Your task to perform on an android device: check battery use Image 0: 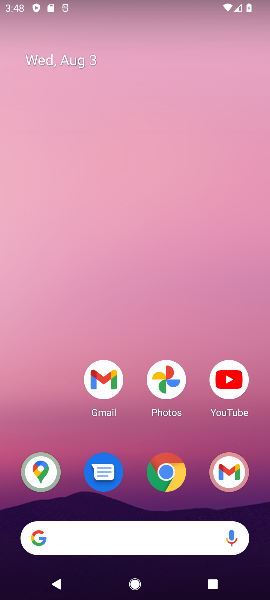
Step 0: drag from (44, 424) to (124, 4)
Your task to perform on an android device: check battery use Image 1: 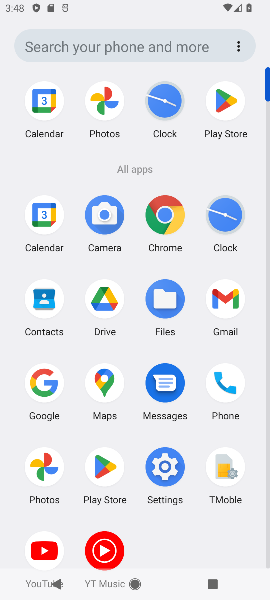
Step 1: click (160, 464)
Your task to perform on an android device: check battery use Image 2: 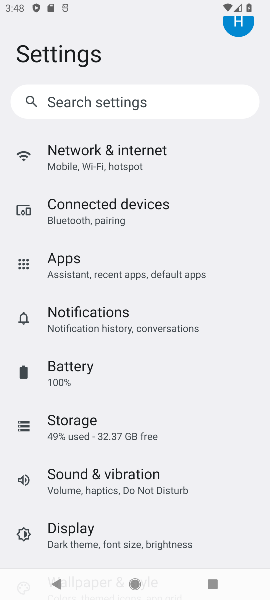
Step 2: click (90, 369)
Your task to perform on an android device: check battery use Image 3: 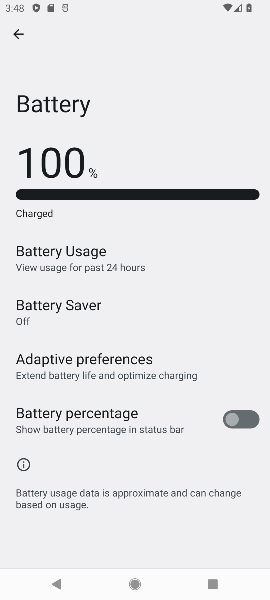
Step 3: click (85, 264)
Your task to perform on an android device: check battery use Image 4: 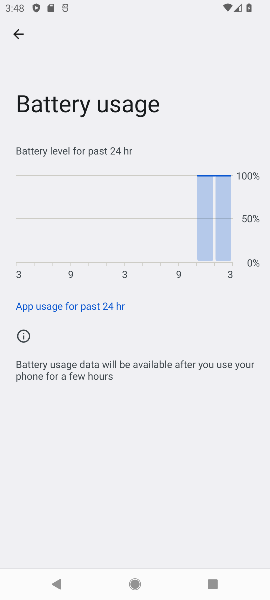
Step 4: task complete